Your task to perform on an android device: Open location settings Image 0: 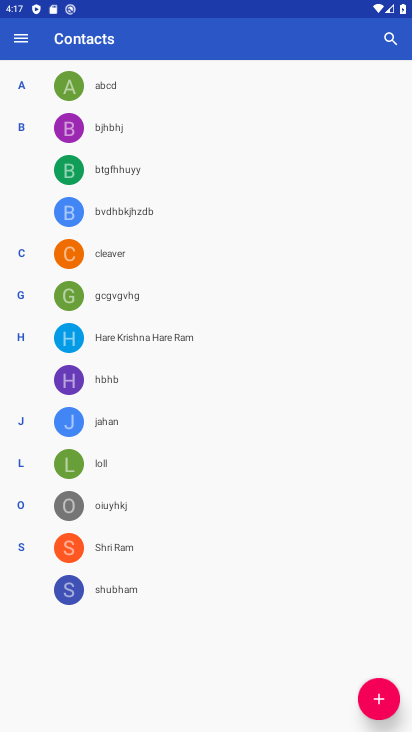
Step 0: press home button
Your task to perform on an android device: Open location settings Image 1: 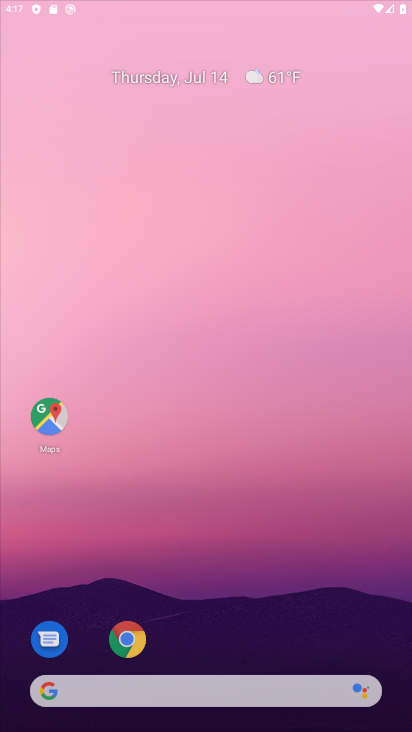
Step 1: drag from (210, 677) to (410, 398)
Your task to perform on an android device: Open location settings Image 2: 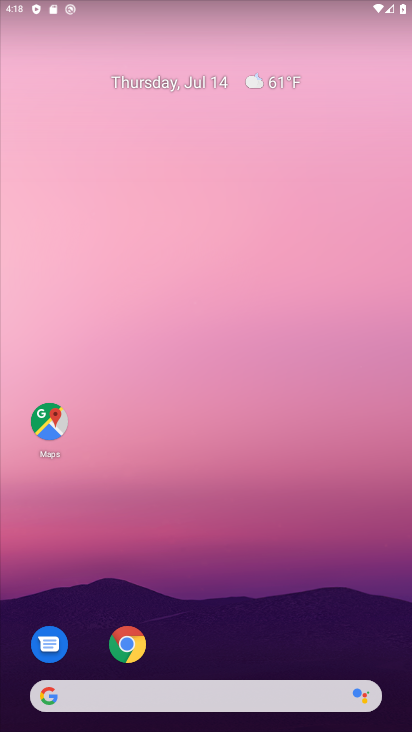
Step 2: drag from (328, 624) to (260, 121)
Your task to perform on an android device: Open location settings Image 3: 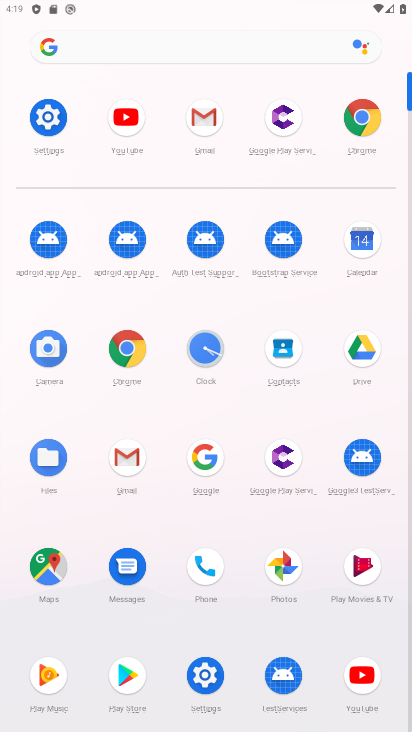
Step 3: click (206, 671)
Your task to perform on an android device: Open location settings Image 4: 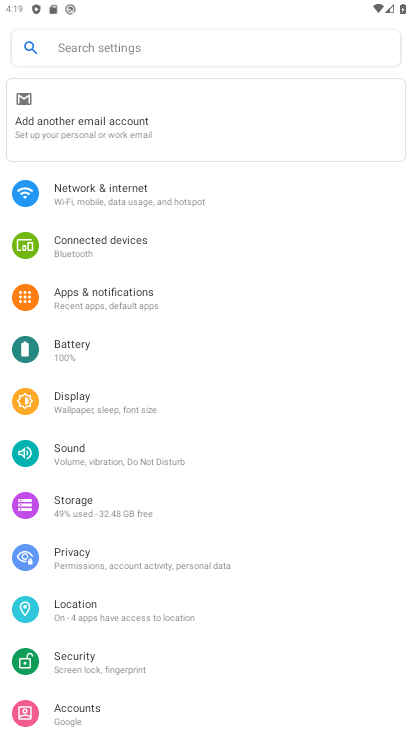
Step 4: click (105, 605)
Your task to perform on an android device: Open location settings Image 5: 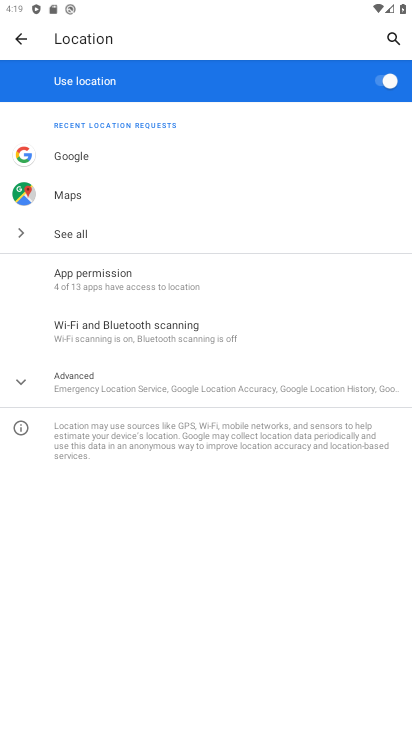
Step 5: task complete